Your task to perform on an android device: turn on location history Image 0: 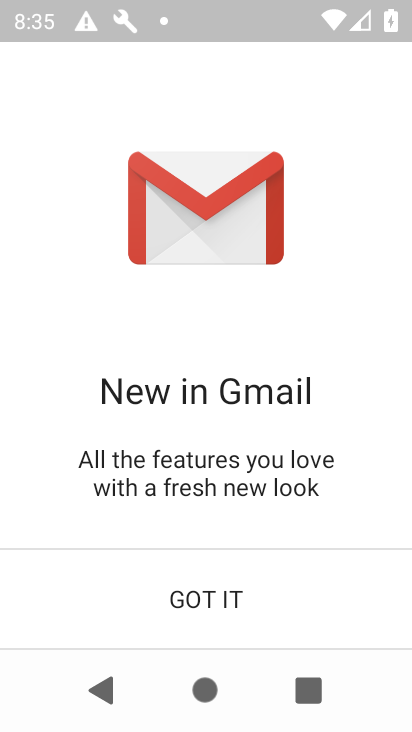
Step 0: click (197, 604)
Your task to perform on an android device: turn on location history Image 1: 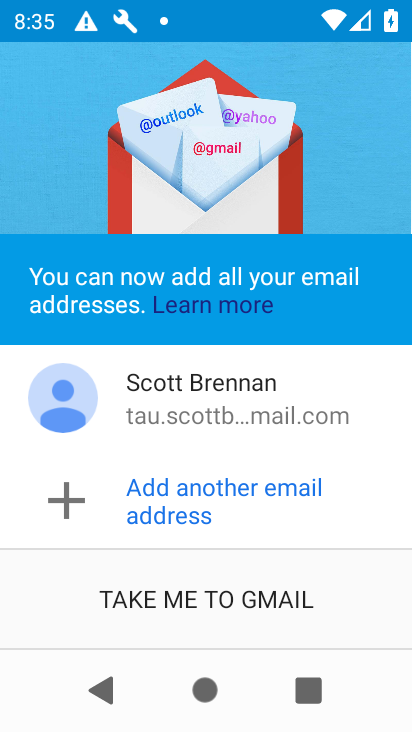
Step 1: press back button
Your task to perform on an android device: turn on location history Image 2: 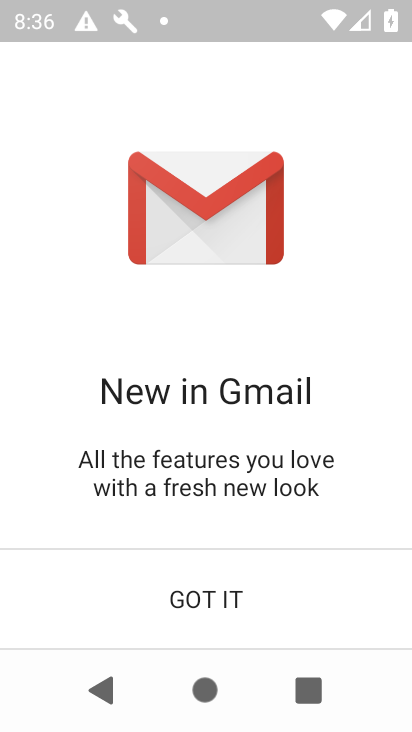
Step 2: press back button
Your task to perform on an android device: turn on location history Image 3: 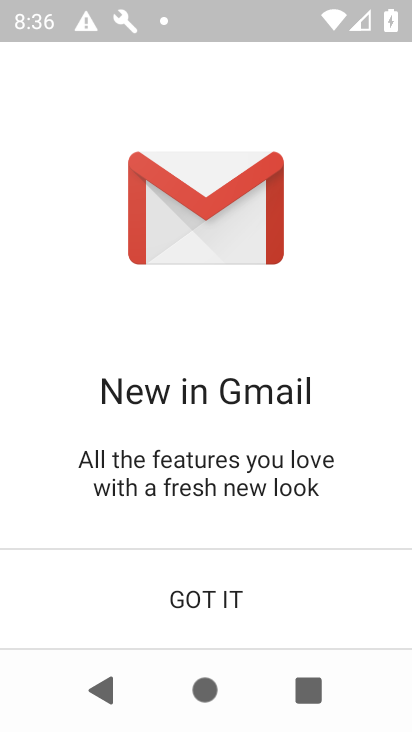
Step 3: press back button
Your task to perform on an android device: turn on location history Image 4: 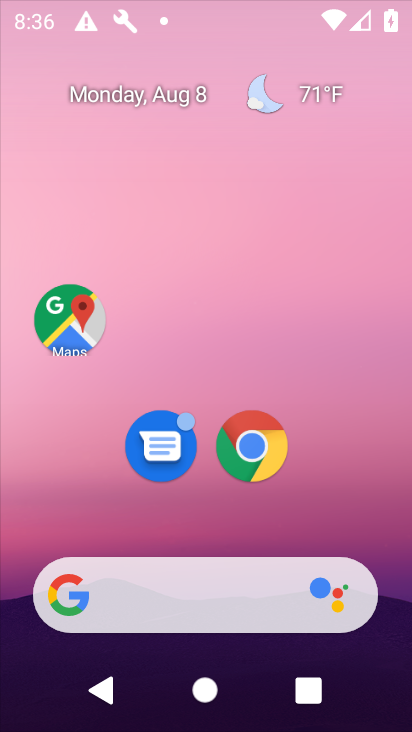
Step 4: press back button
Your task to perform on an android device: turn on location history Image 5: 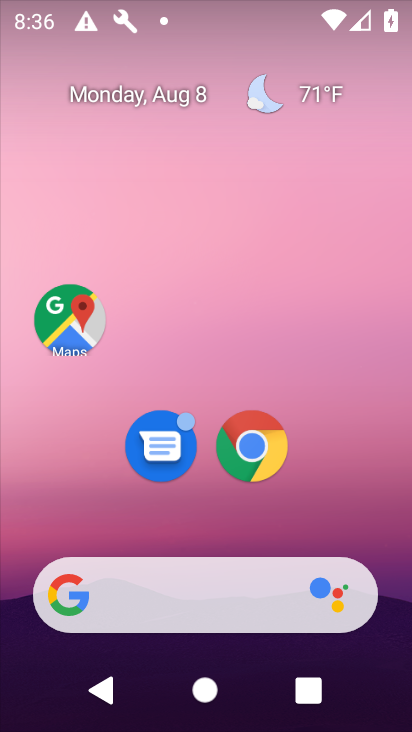
Step 5: drag from (279, 667) to (242, 213)
Your task to perform on an android device: turn on location history Image 6: 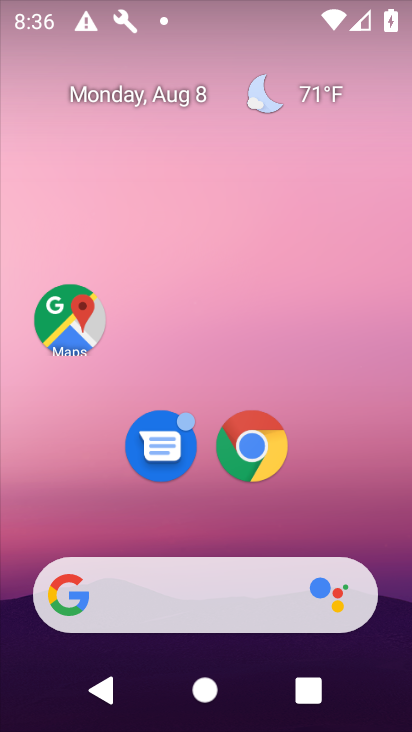
Step 6: drag from (279, 555) to (236, 200)
Your task to perform on an android device: turn on location history Image 7: 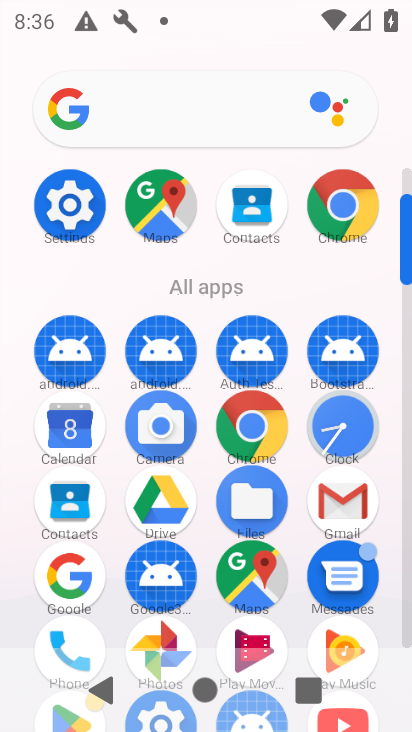
Step 7: click (65, 208)
Your task to perform on an android device: turn on location history Image 8: 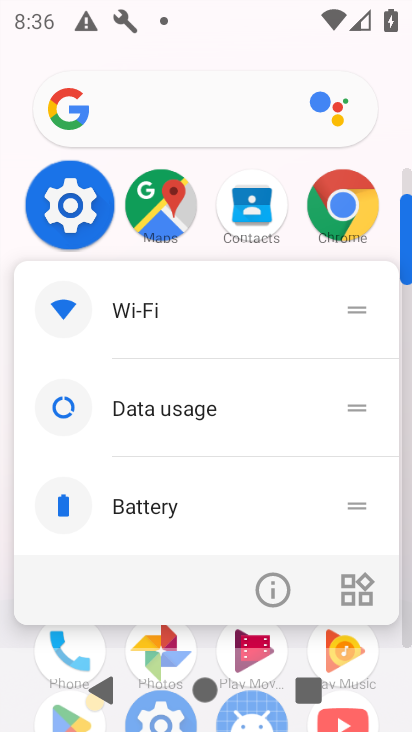
Step 8: click (63, 209)
Your task to perform on an android device: turn on location history Image 9: 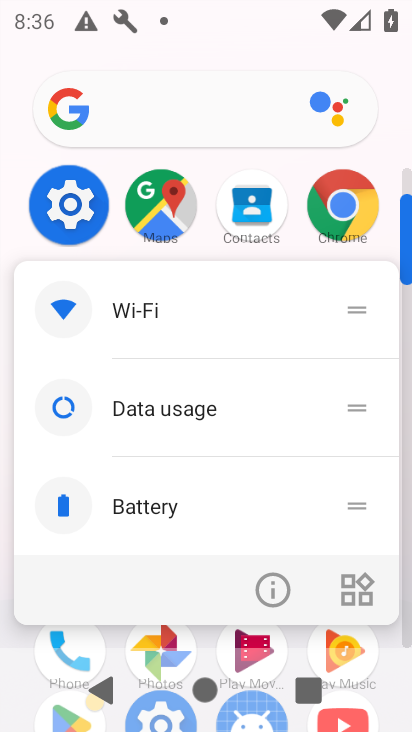
Step 9: click (70, 214)
Your task to perform on an android device: turn on location history Image 10: 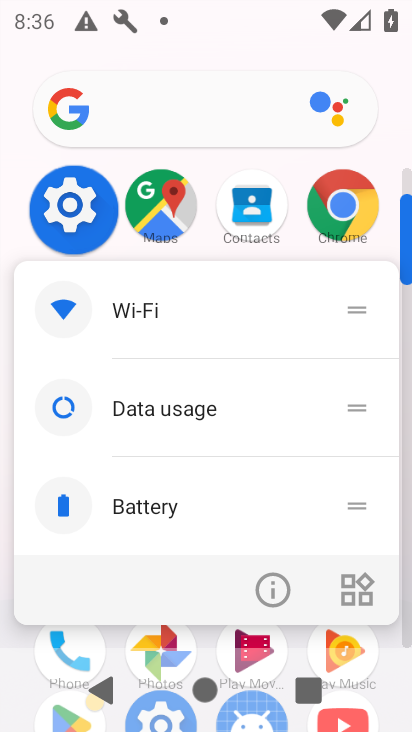
Step 10: click (74, 219)
Your task to perform on an android device: turn on location history Image 11: 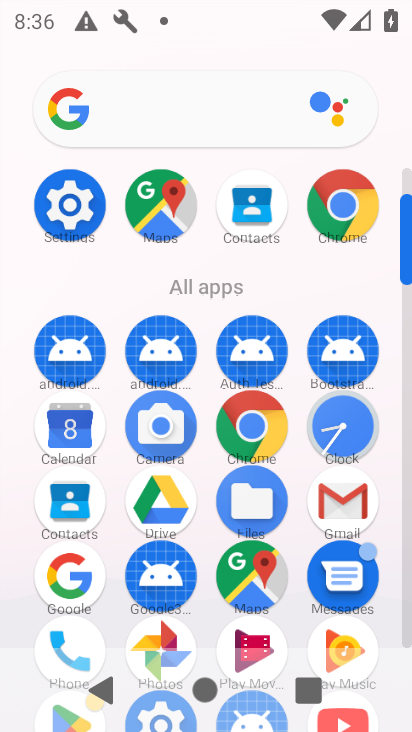
Step 11: click (76, 219)
Your task to perform on an android device: turn on location history Image 12: 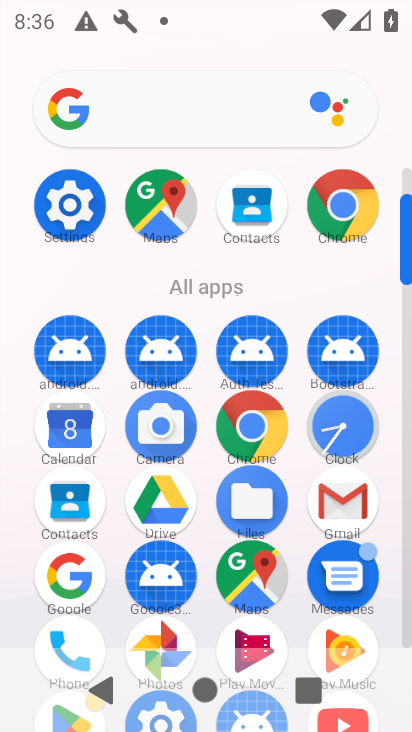
Step 12: click (76, 219)
Your task to perform on an android device: turn on location history Image 13: 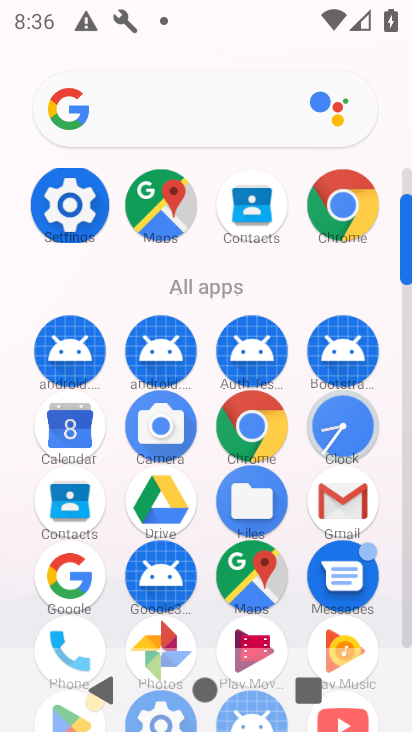
Step 13: click (76, 219)
Your task to perform on an android device: turn on location history Image 14: 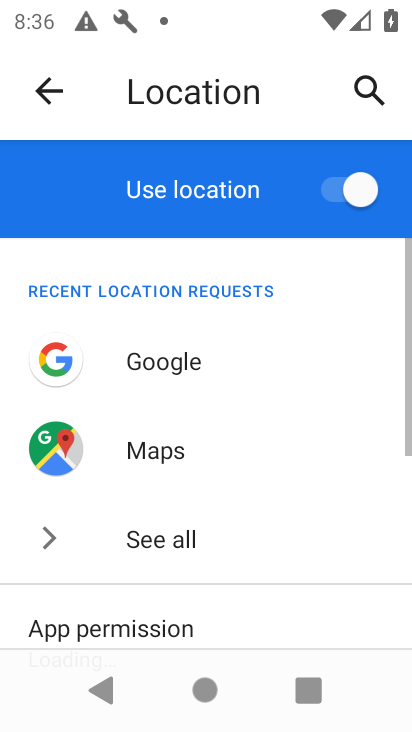
Step 14: drag from (217, 203) to (209, 166)
Your task to perform on an android device: turn on location history Image 15: 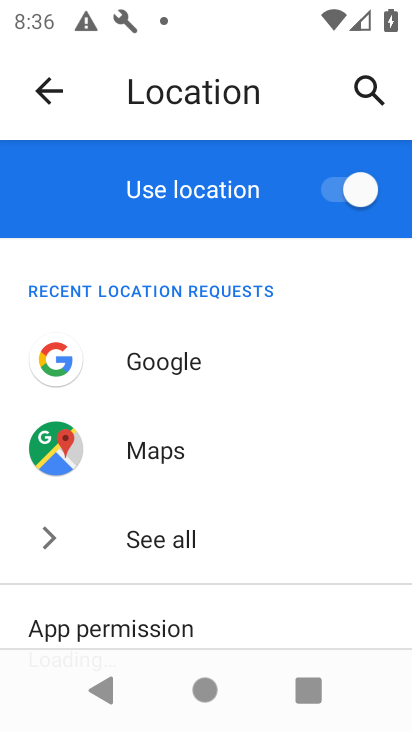
Step 15: drag from (214, 365) to (227, 147)
Your task to perform on an android device: turn on location history Image 16: 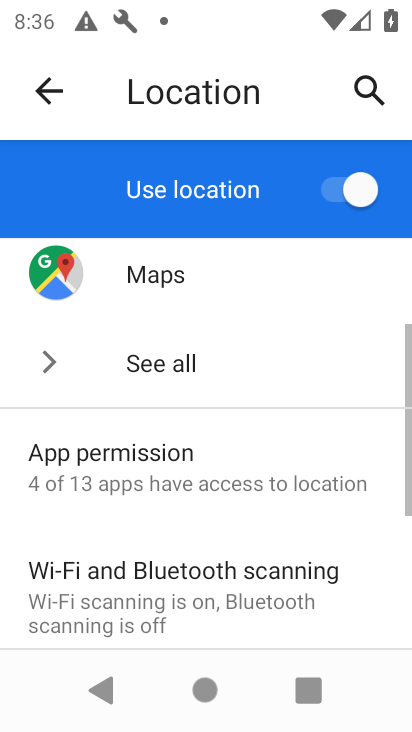
Step 16: click (50, 91)
Your task to perform on an android device: turn on location history Image 17: 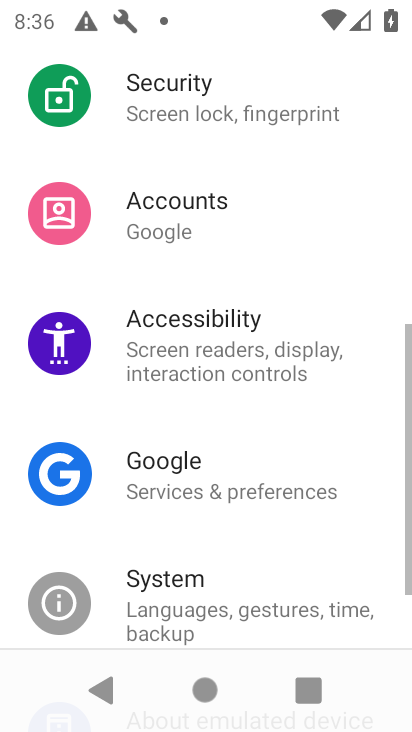
Step 17: click (175, 478)
Your task to perform on an android device: turn on location history Image 18: 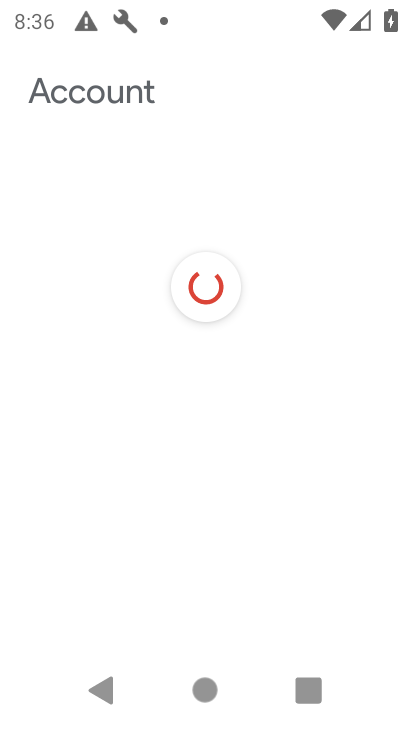
Step 18: press back button
Your task to perform on an android device: turn on location history Image 19: 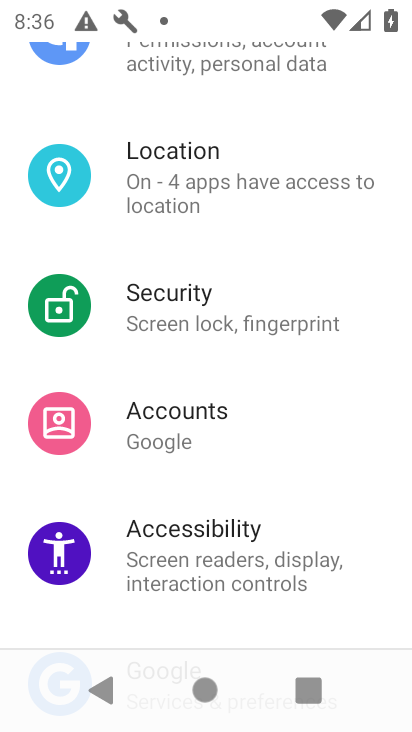
Step 19: click (173, 179)
Your task to perform on an android device: turn on location history Image 20: 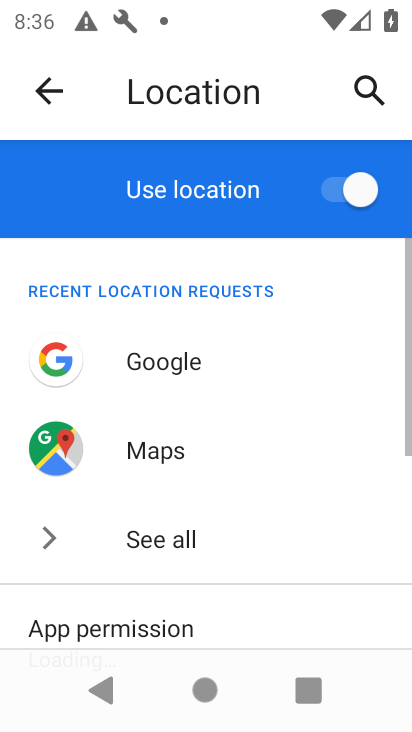
Step 20: drag from (198, 479) to (171, 134)
Your task to perform on an android device: turn on location history Image 21: 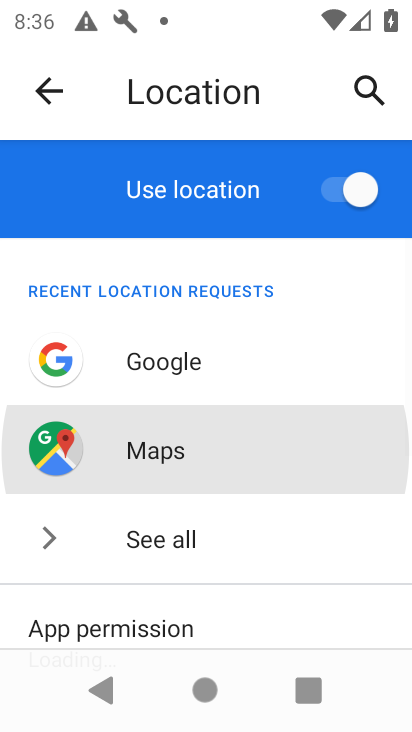
Step 21: drag from (249, 495) to (191, 216)
Your task to perform on an android device: turn on location history Image 22: 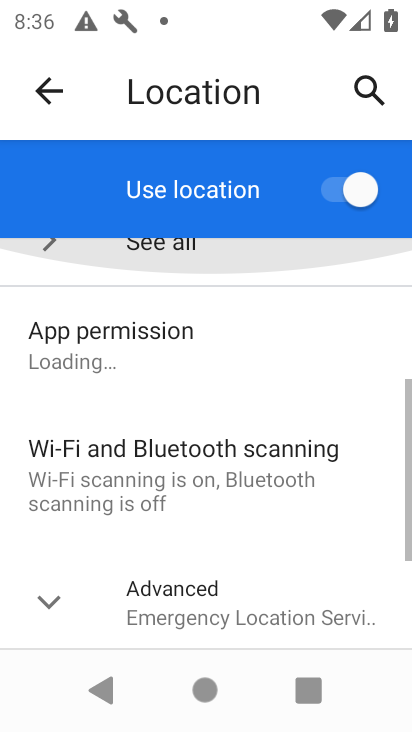
Step 22: drag from (230, 483) to (233, 225)
Your task to perform on an android device: turn on location history Image 23: 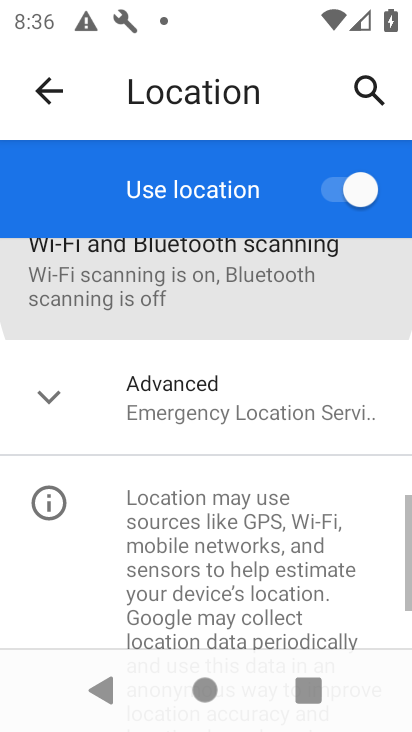
Step 23: drag from (224, 505) to (227, 276)
Your task to perform on an android device: turn on location history Image 24: 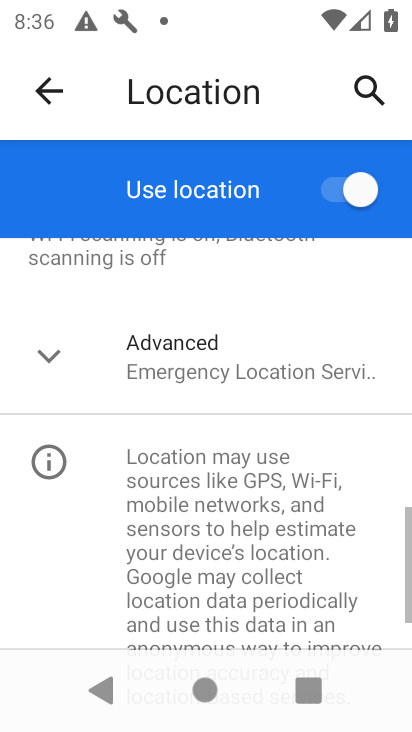
Step 24: click (177, 365)
Your task to perform on an android device: turn on location history Image 25: 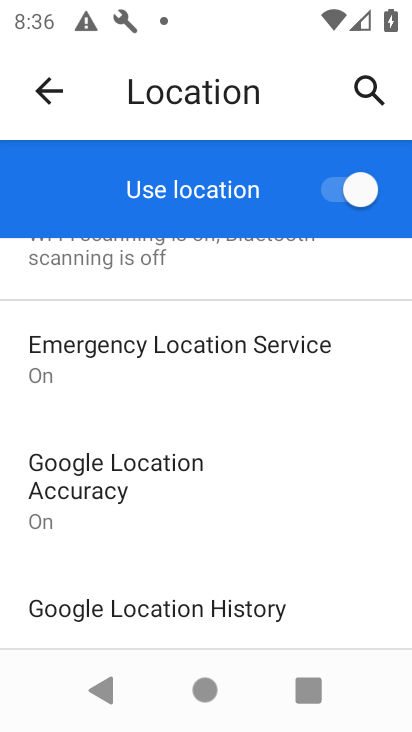
Step 25: click (169, 610)
Your task to perform on an android device: turn on location history Image 26: 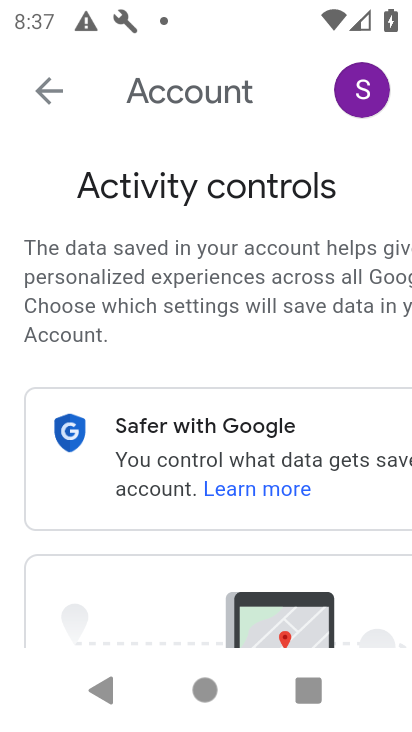
Step 26: click (232, 204)
Your task to perform on an android device: turn on location history Image 27: 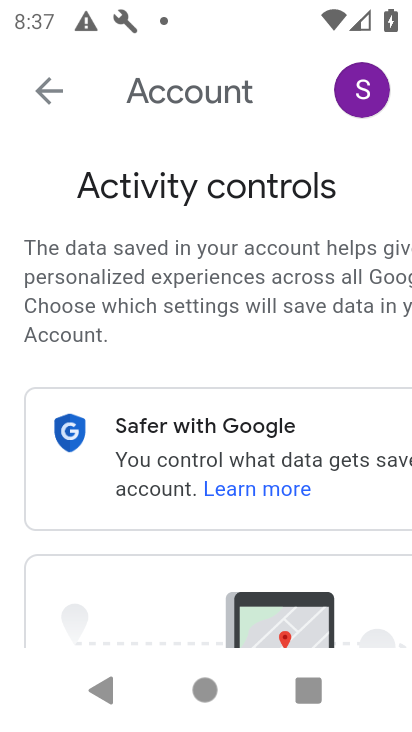
Step 27: drag from (278, 481) to (269, 166)
Your task to perform on an android device: turn on location history Image 28: 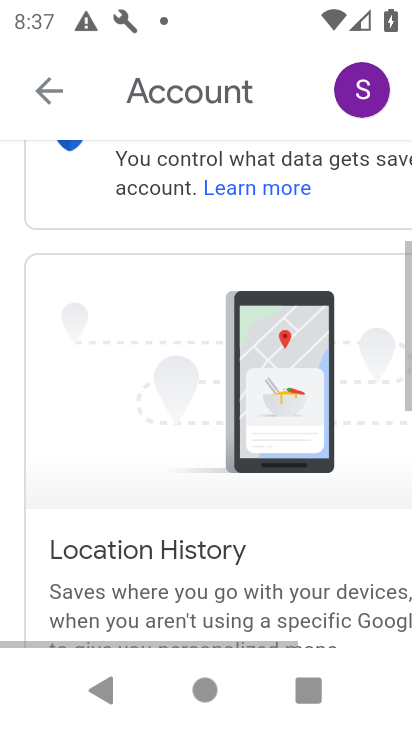
Step 28: drag from (294, 549) to (294, 223)
Your task to perform on an android device: turn on location history Image 29: 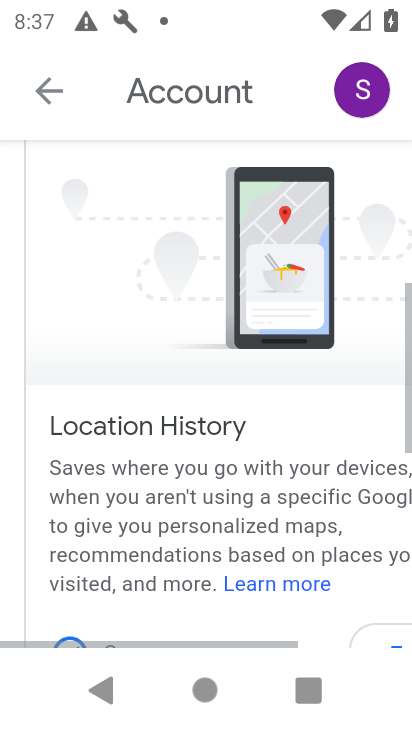
Step 29: drag from (378, 630) to (317, 253)
Your task to perform on an android device: turn on location history Image 30: 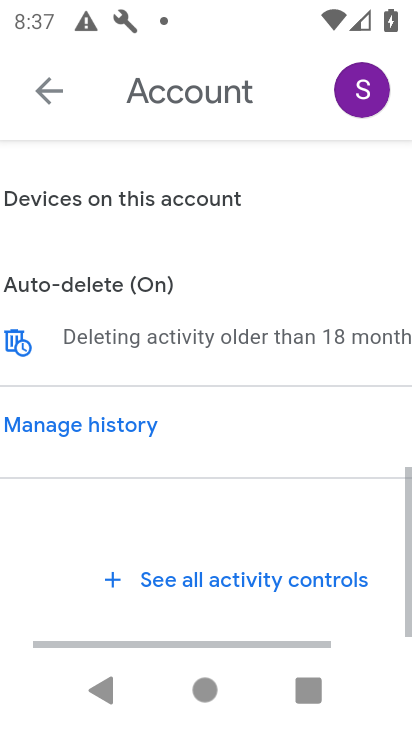
Step 30: drag from (225, 475) to (222, 264)
Your task to perform on an android device: turn on location history Image 31: 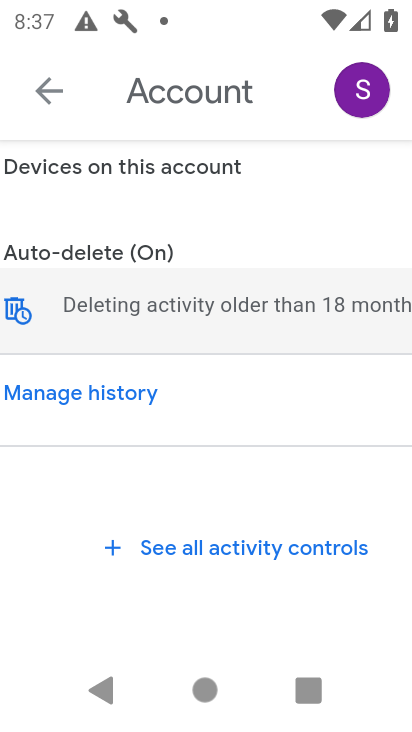
Step 31: drag from (175, 193) to (214, 494)
Your task to perform on an android device: turn on location history Image 32: 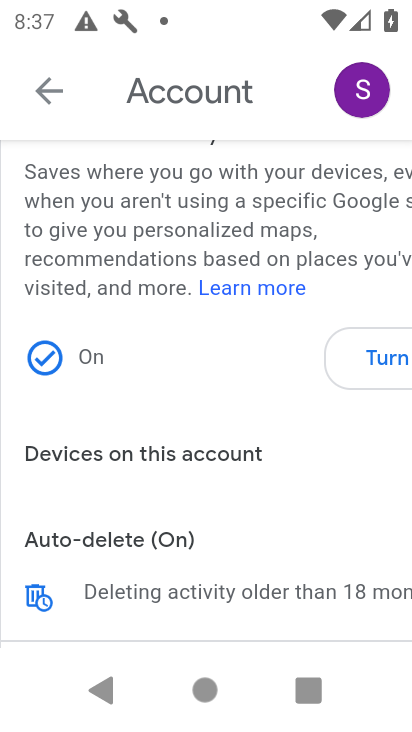
Step 32: click (39, 353)
Your task to perform on an android device: turn on location history Image 33: 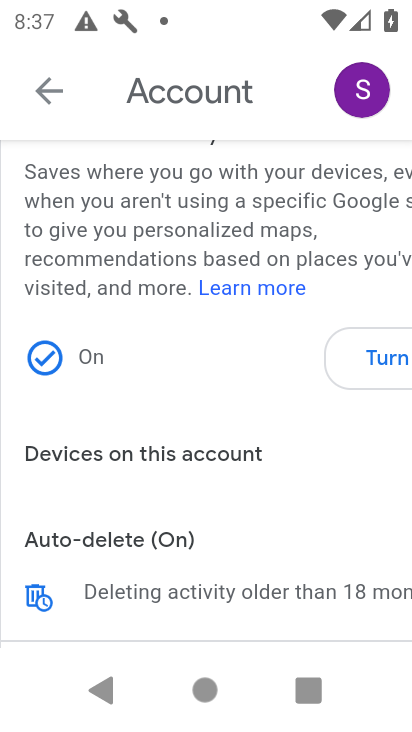
Step 33: task complete